Your task to perform on an android device: change notification settings in the gmail app Image 0: 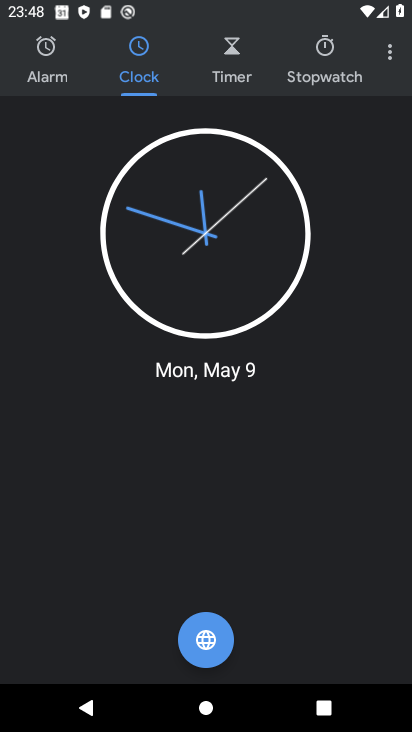
Step 0: press back button
Your task to perform on an android device: change notification settings in the gmail app Image 1: 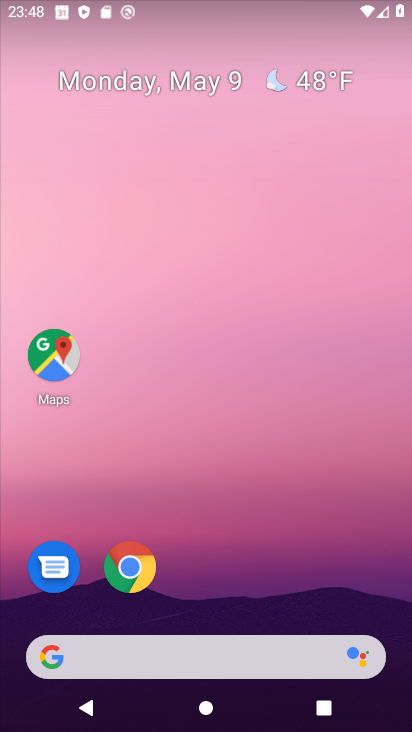
Step 1: drag from (234, 577) to (210, 48)
Your task to perform on an android device: change notification settings in the gmail app Image 2: 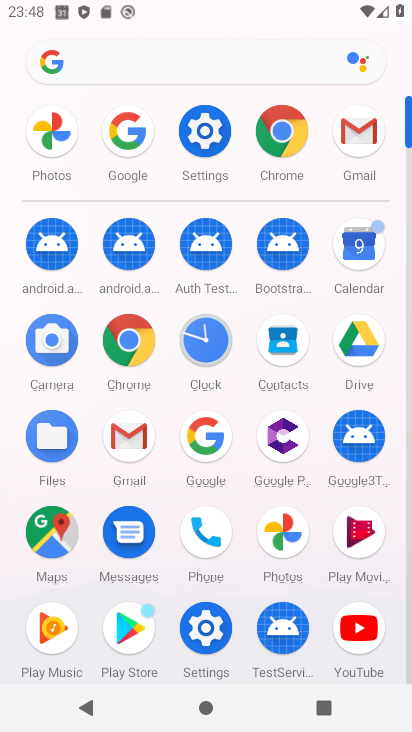
Step 2: click (356, 134)
Your task to perform on an android device: change notification settings in the gmail app Image 3: 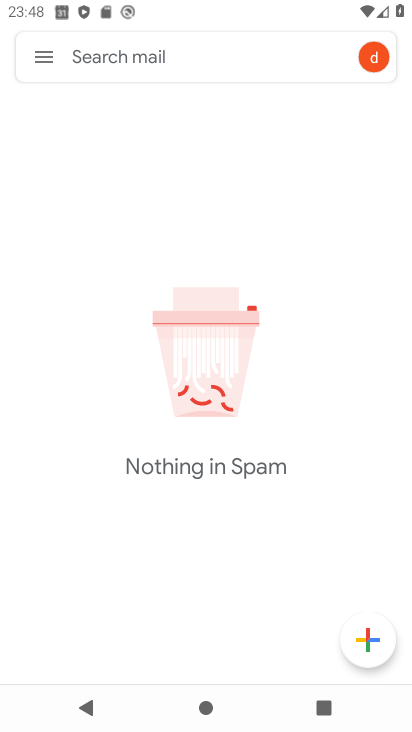
Step 3: click (38, 58)
Your task to perform on an android device: change notification settings in the gmail app Image 4: 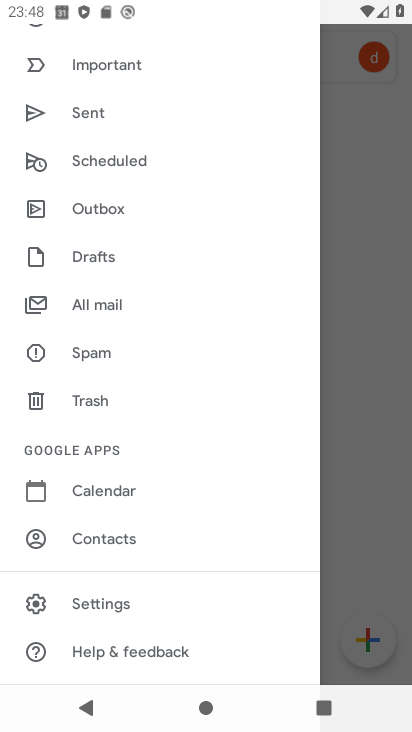
Step 4: click (101, 605)
Your task to perform on an android device: change notification settings in the gmail app Image 5: 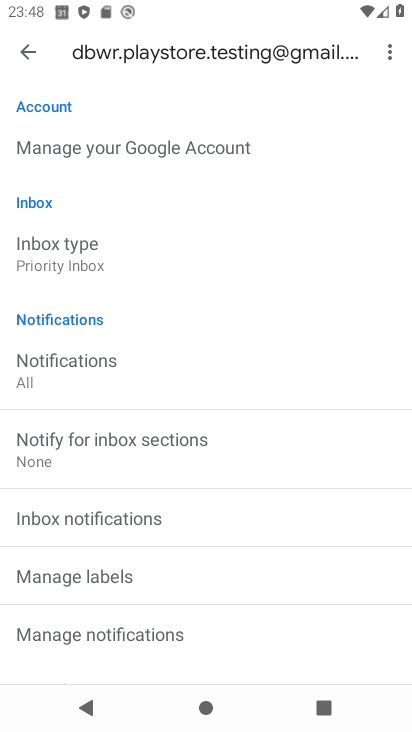
Step 5: drag from (191, 479) to (219, 349)
Your task to perform on an android device: change notification settings in the gmail app Image 6: 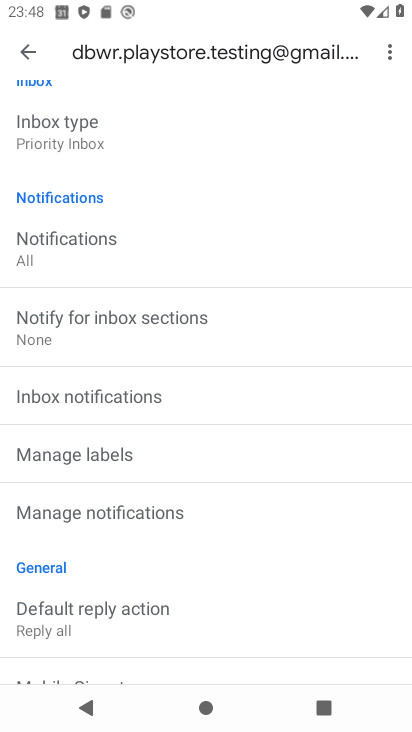
Step 6: click (99, 510)
Your task to perform on an android device: change notification settings in the gmail app Image 7: 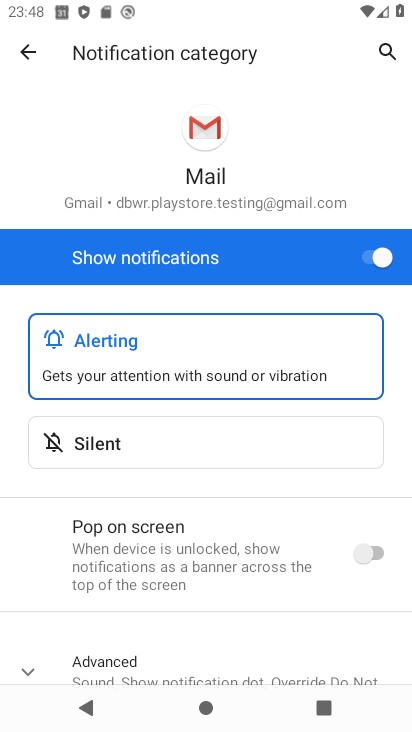
Step 7: click (379, 259)
Your task to perform on an android device: change notification settings in the gmail app Image 8: 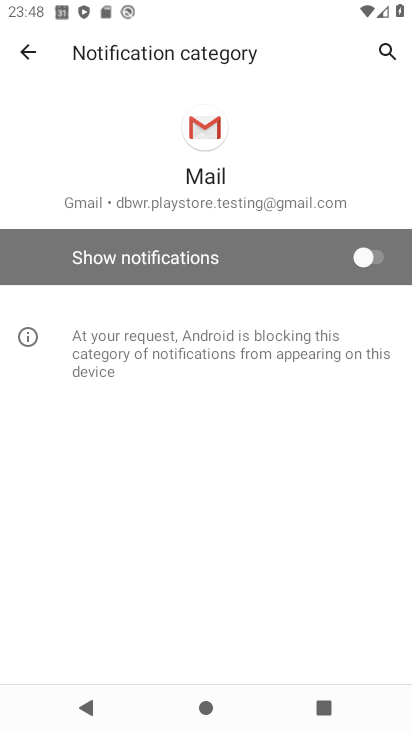
Step 8: task complete